Your task to perform on an android device: What's on my calendar today? Image 0: 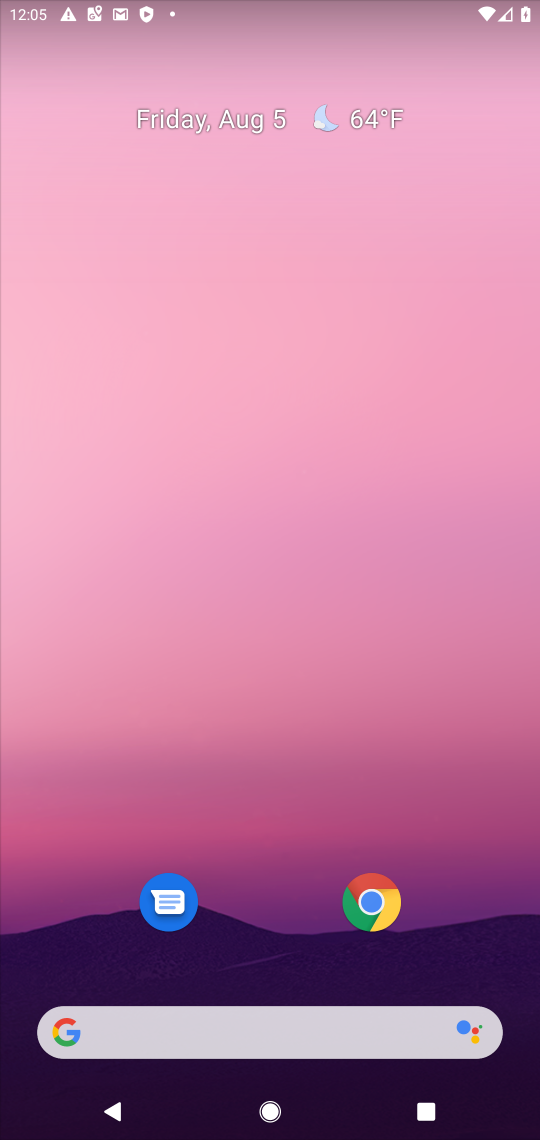
Step 0: press home button
Your task to perform on an android device: What's on my calendar today? Image 1: 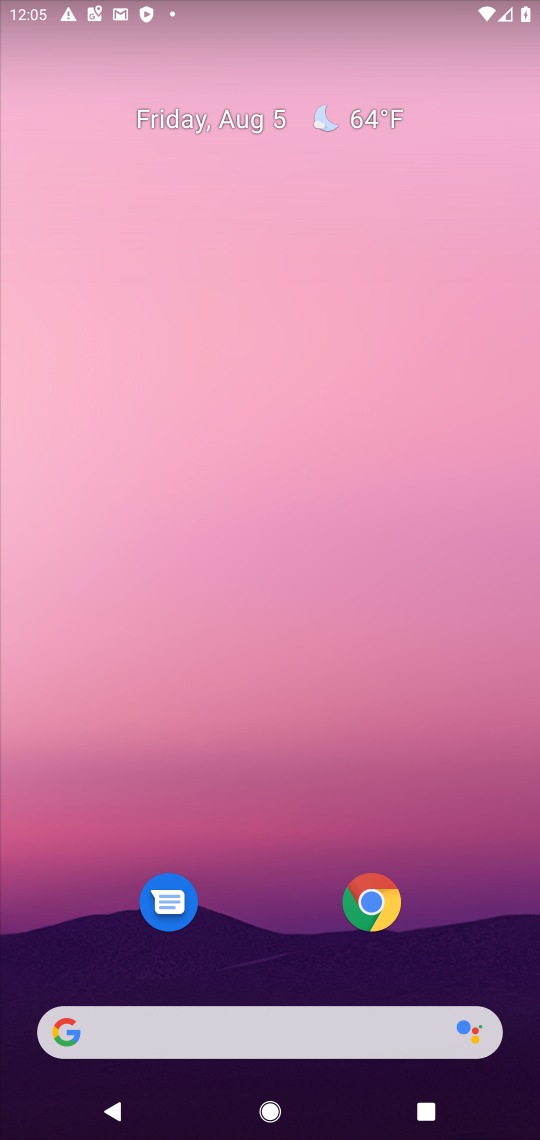
Step 1: drag from (274, 970) to (364, 93)
Your task to perform on an android device: What's on my calendar today? Image 2: 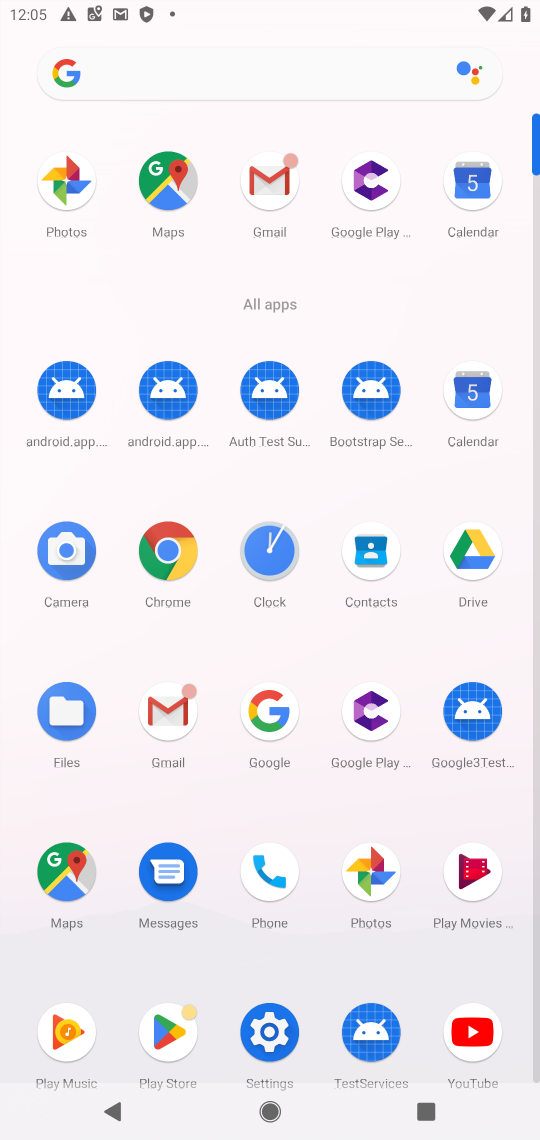
Step 2: click (475, 388)
Your task to perform on an android device: What's on my calendar today? Image 3: 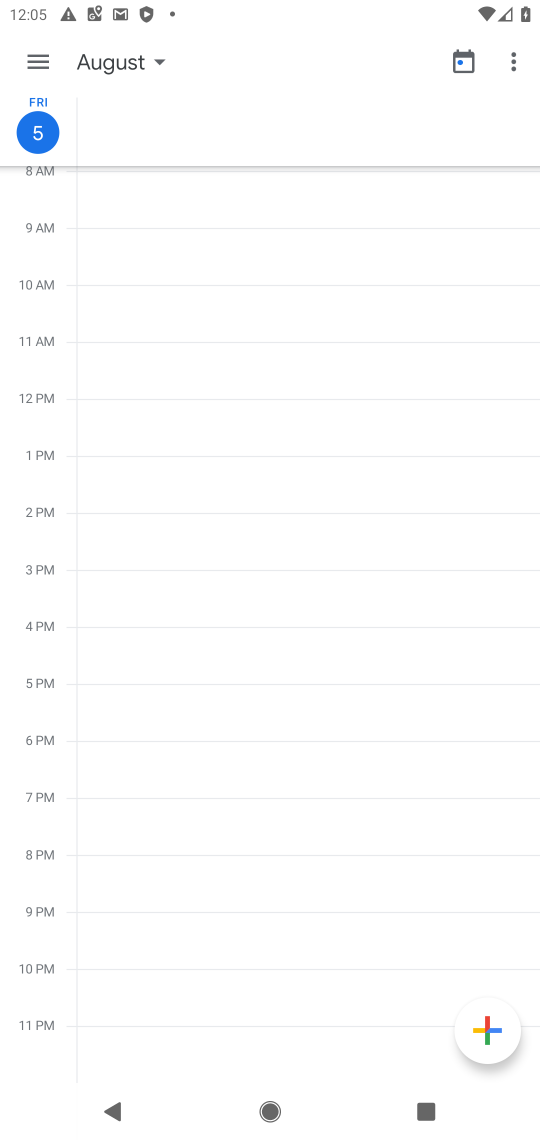
Step 3: task complete